Your task to perform on an android device: Do I have any events this weekend? Image 0: 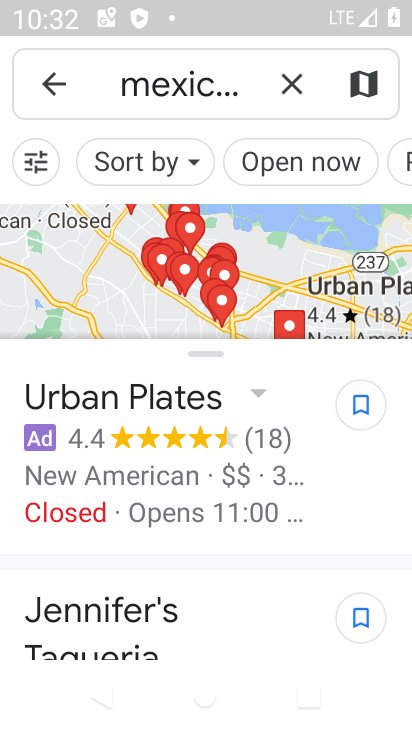
Step 0: press home button
Your task to perform on an android device: Do I have any events this weekend? Image 1: 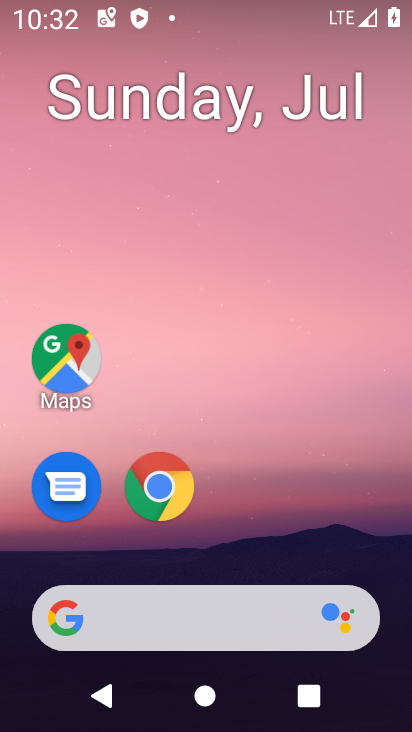
Step 1: drag from (305, 528) to (287, 50)
Your task to perform on an android device: Do I have any events this weekend? Image 2: 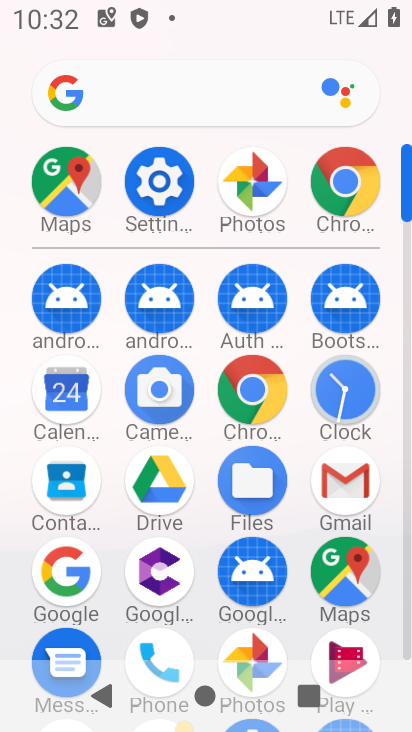
Step 2: click (61, 390)
Your task to perform on an android device: Do I have any events this weekend? Image 3: 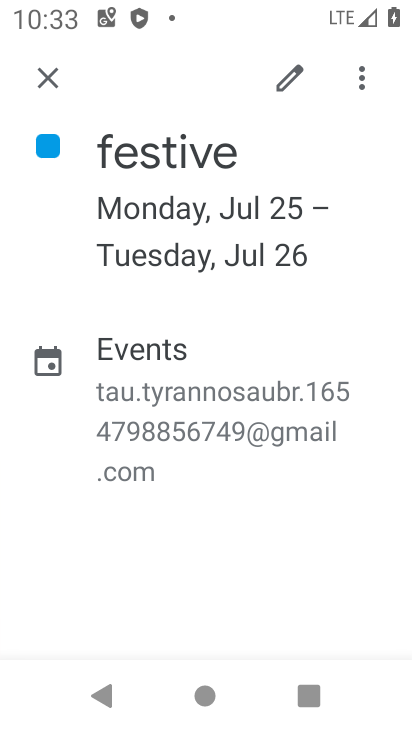
Step 3: task complete